Your task to perform on an android device: turn smart compose on in the gmail app Image 0: 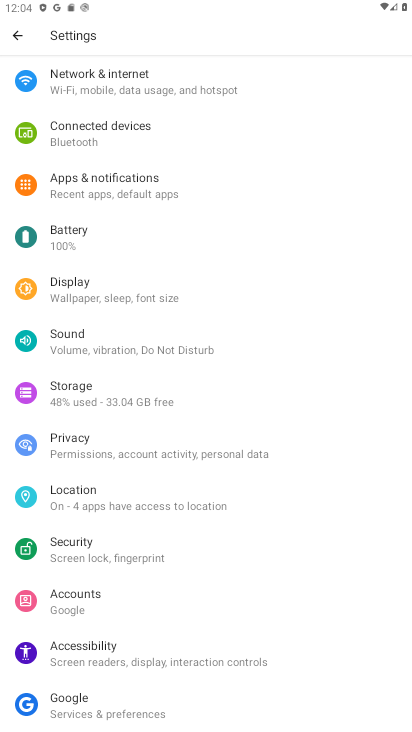
Step 0: press home button
Your task to perform on an android device: turn smart compose on in the gmail app Image 1: 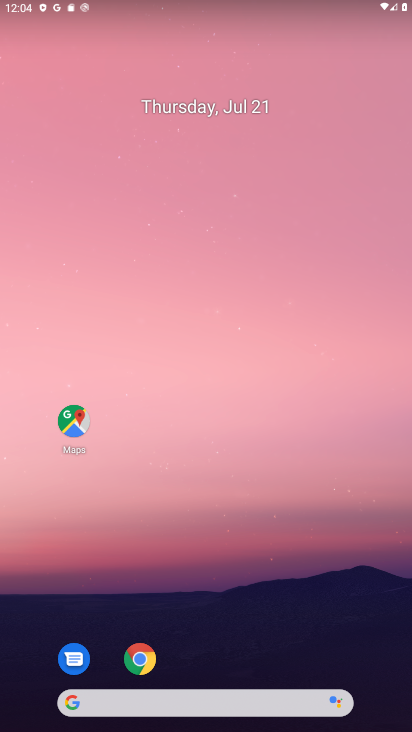
Step 1: drag from (330, 622) to (269, 22)
Your task to perform on an android device: turn smart compose on in the gmail app Image 2: 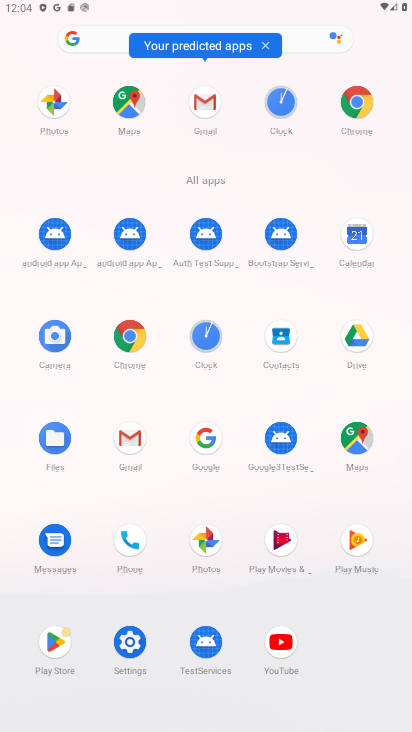
Step 2: click (197, 109)
Your task to perform on an android device: turn smart compose on in the gmail app Image 3: 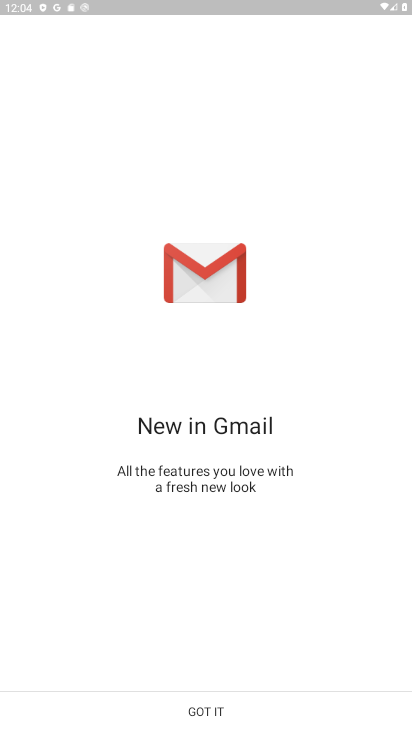
Step 3: click (233, 718)
Your task to perform on an android device: turn smart compose on in the gmail app Image 4: 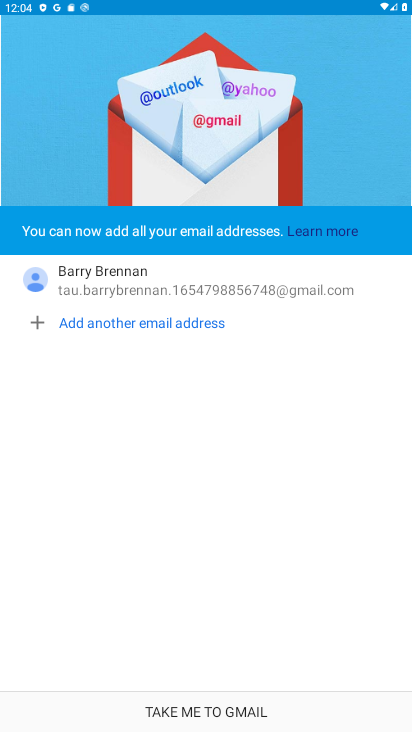
Step 4: click (235, 708)
Your task to perform on an android device: turn smart compose on in the gmail app Image 5: 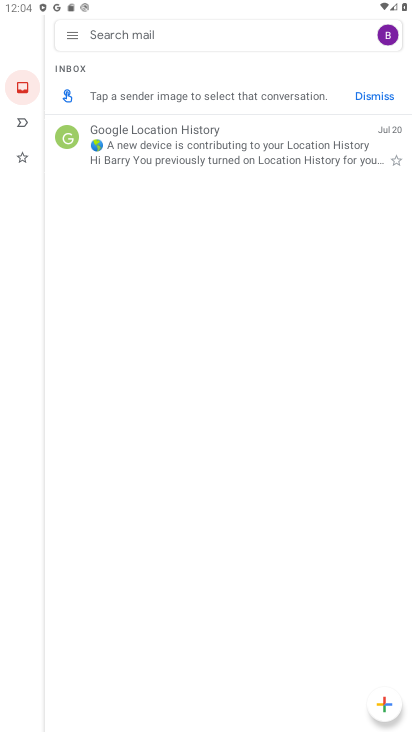
Step 5: click (78, 40)
Your task to perform on an android device: turn smart compose on in the gmail app Image 6: 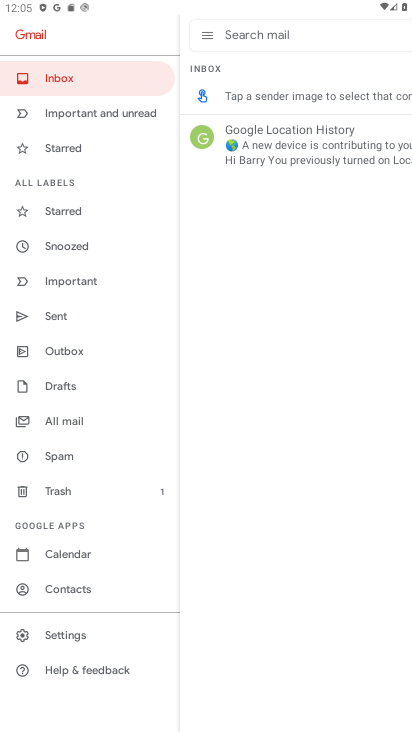
Step 6: click (98, 629)
Your task to perform on an android device: turn smart compose on in the gmail app Image 7: 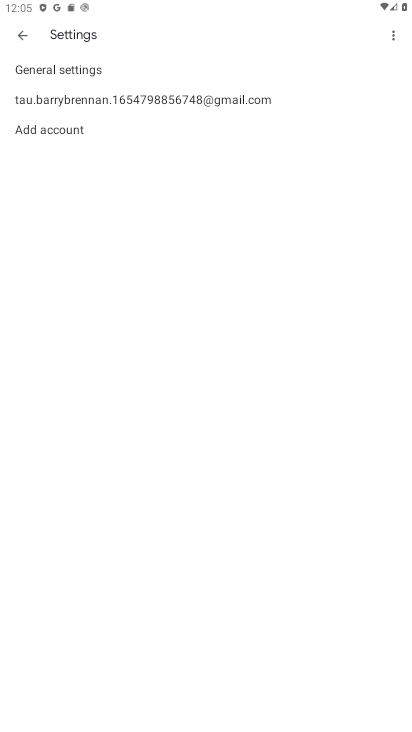
Step 7: click (211, 102)
Your task to perform on an android device: turn smart compose on in the gmail app Image 8: 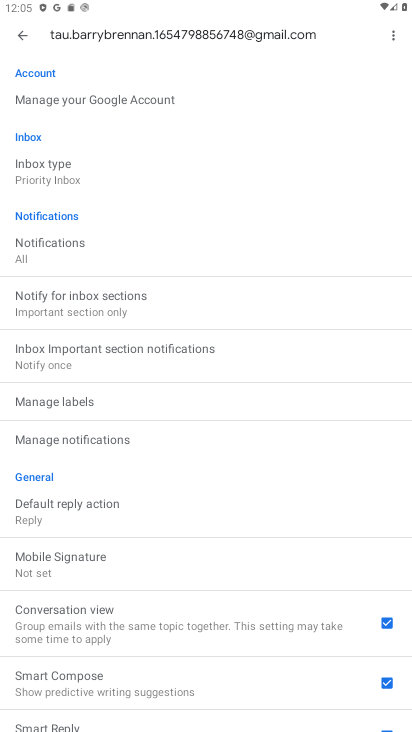
Step 8: task complete